Your task to perform on an android device: Go to Google Image 0: 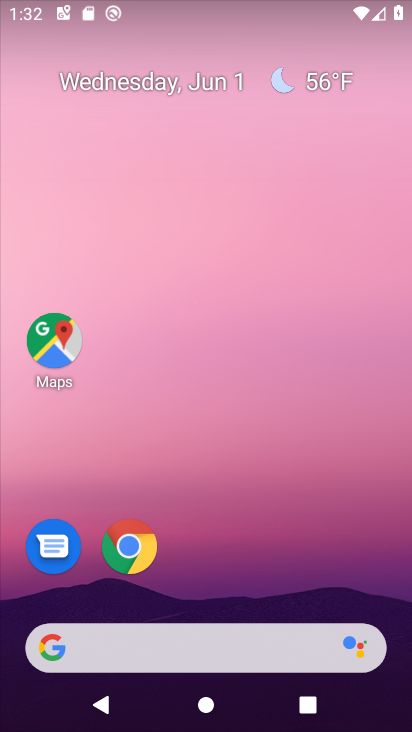
Step 0: drag from (176, 715) to (102, 207)
Your task to perform on an android device: Go to Google Image 1: 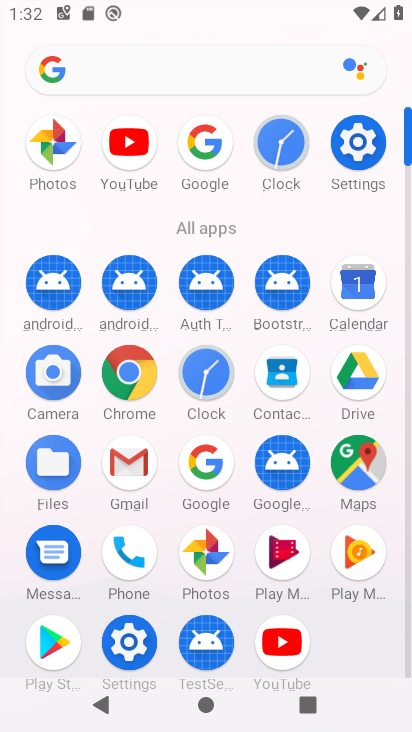
Step 1: click (209, 466)
Your task to perform on an android device: Go to Google Image 2: 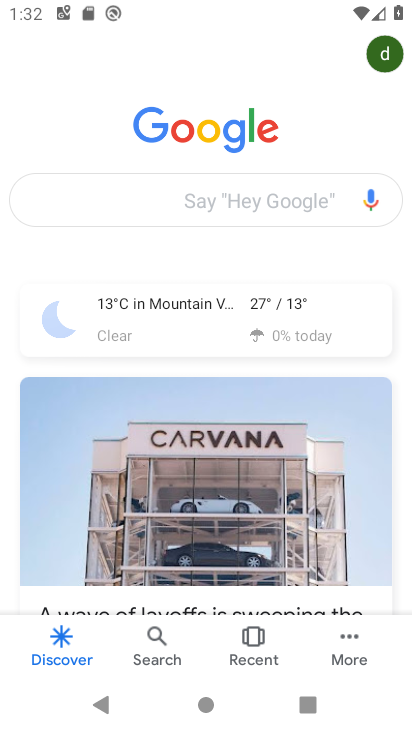
Step 2: task complete